Your task to perform on an android device: turn off smart reply in the gmail app Image 0: 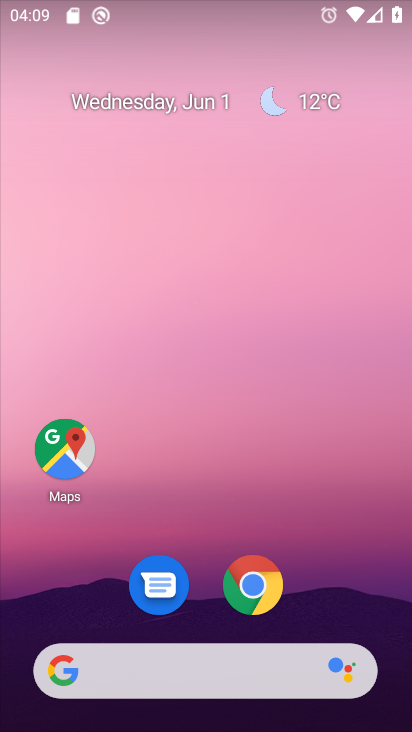
Step 0: drag from (217, 504) to (233, 11)
Your task to perform on an android device: turn off smart reply in the gmail app Image 1: 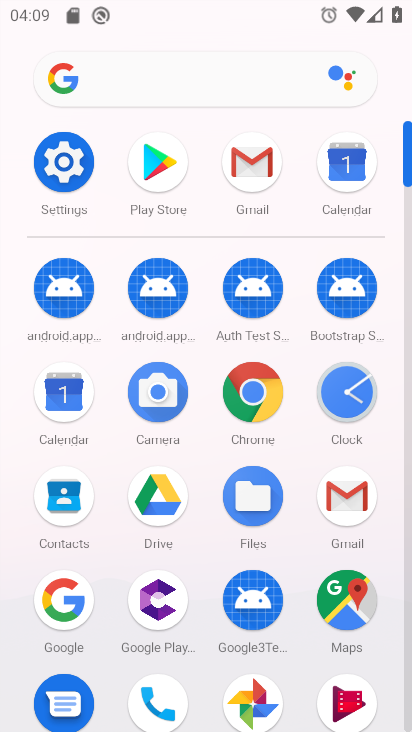
Step 1: click (250, 160)
Your task to perform on an android device: turn off smart reply in the gmail app Image 2: 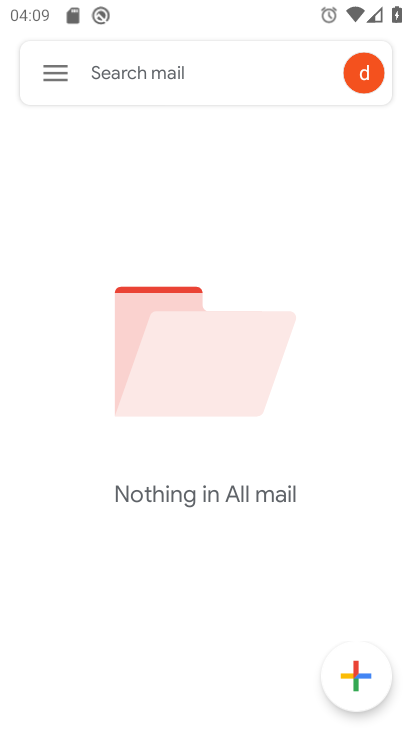
Step 2: click (50, 62)
Your task to perform on an android device: turn off smart reply in the gmail app Image 3: 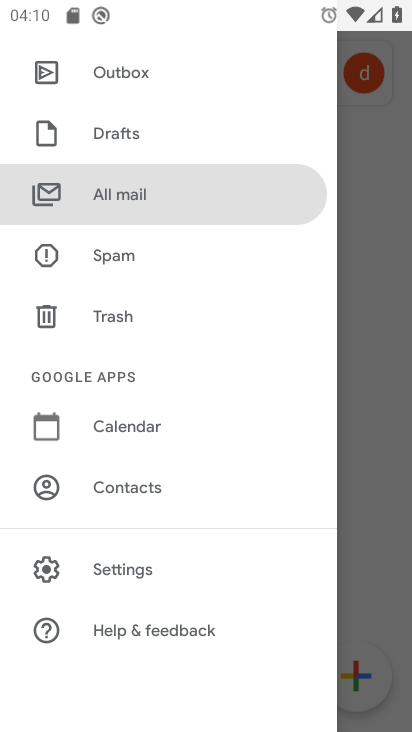
Step 3: click (151, 565)
Your task to perform on an android device: turn off smart reply in the gmail app Image 4: 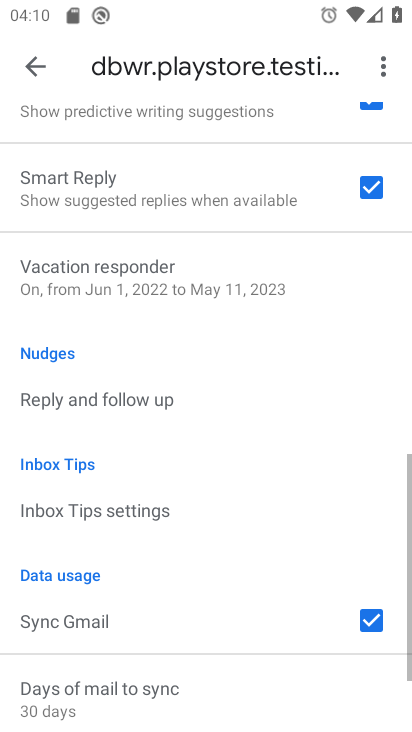
Step 4: drag from (234, 537) to (234, 82)
Your task to perform on an android device: turn off smart reply in the gmail app Image 5: 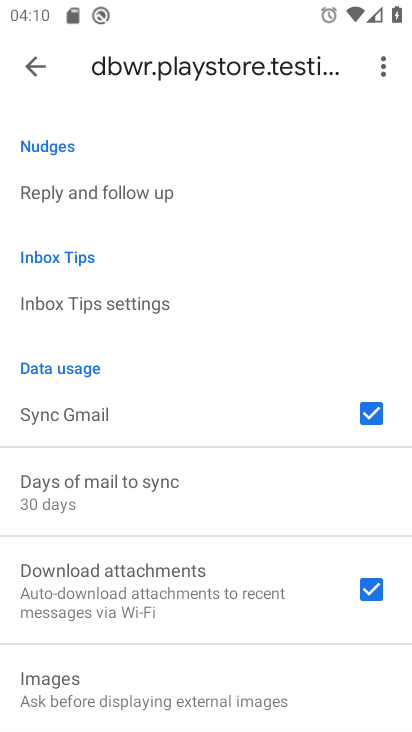
Step 5: drag from (232, 174) to (261, 711)
Your task to perform on an android device: turn off smart reply in the gmail app Image 6: 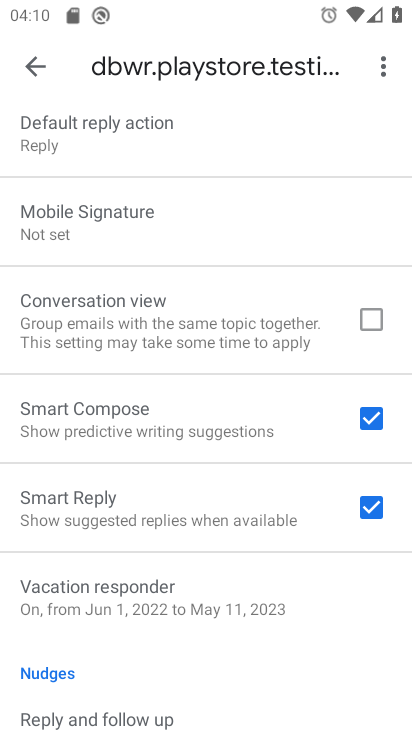
Step 6: click (365, 497)
Your task to perform on an android device: turn off smart reply in the gmail app Image 7: 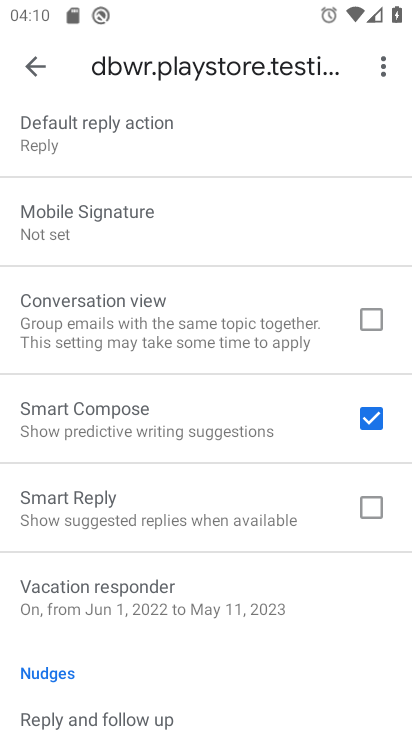
Step 7: task complete